Your task to perform on an android device: find which apps use the phone's location Image 0: 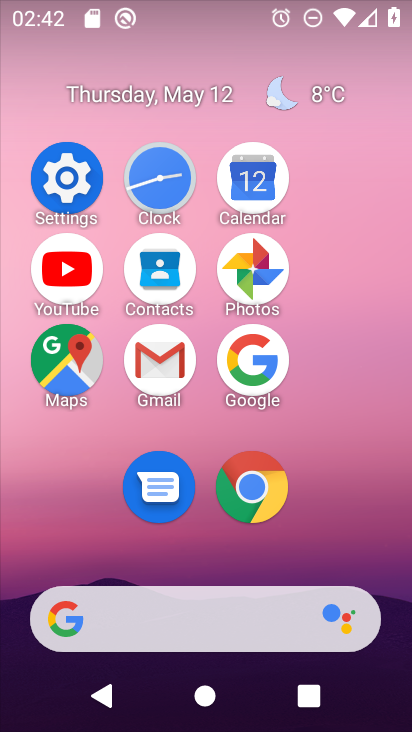
Step 0: click (78, 200)
Your task to perform on an android device: find which apps use the phone's location Image 1: 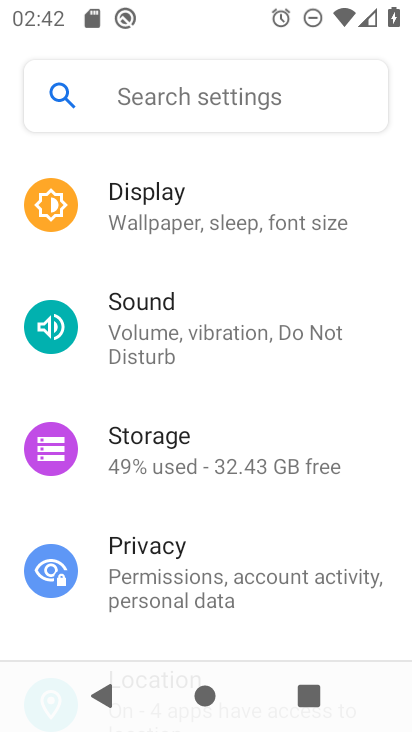
Step 1: drag from (261, 626) to (293, 281)
Your task to perform on an android device: find which apps use the phone's location Image 2: 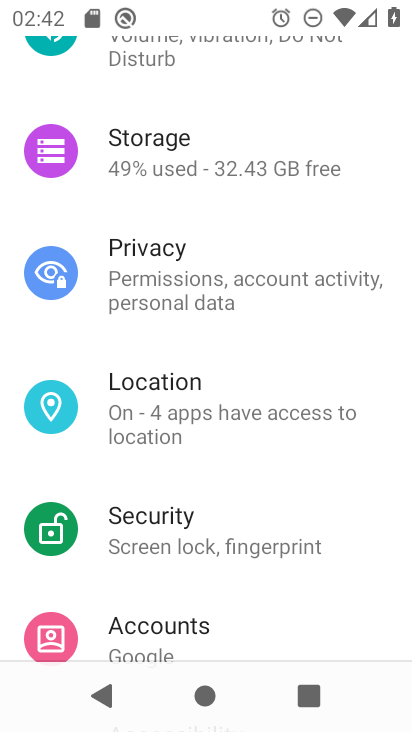
Step 2: click (234, 401)
Your task to perform on an android device: find which apps use the phone's location Image 3: 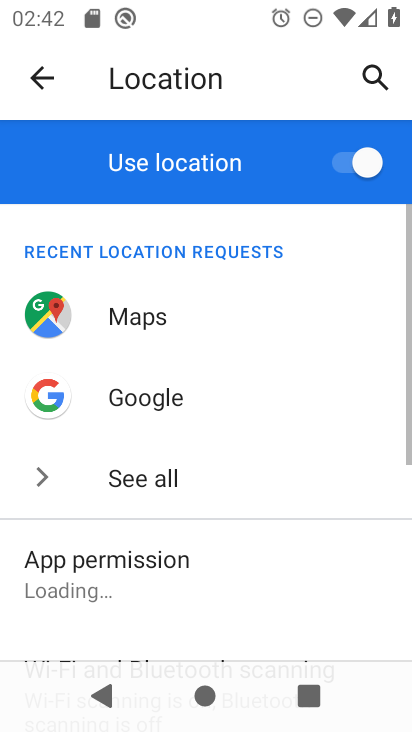
Step 3: task complete